Your task to perform on an android device: toggle location history Image 0: 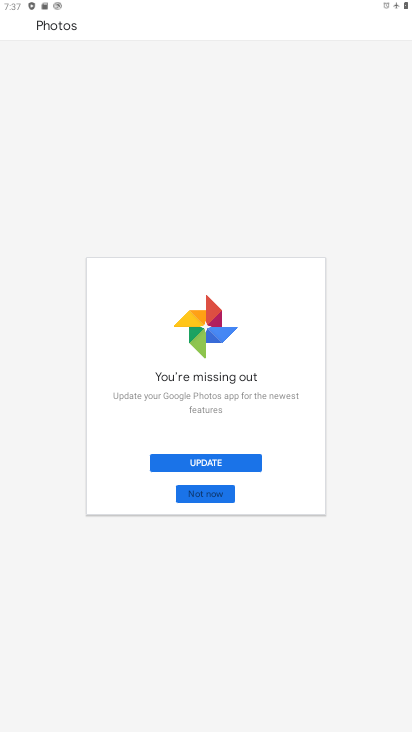
Step 0: press home button
Your task to perform on an android device: toggle location history Image 1: 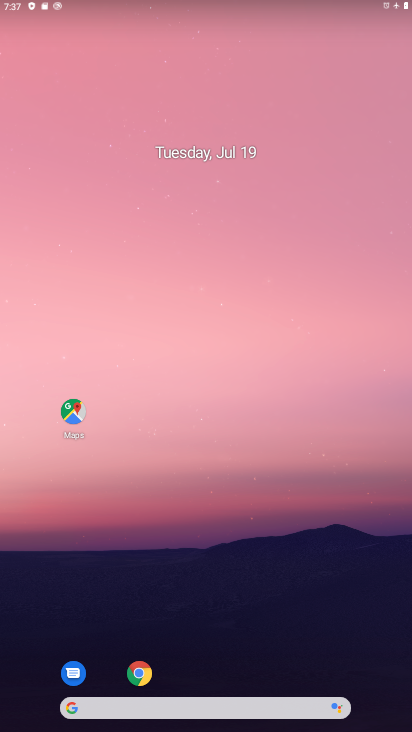
Step 1: drag from (261, 616) to (291, 3)
Your task to perform on an android device: toggle location history Image 2: 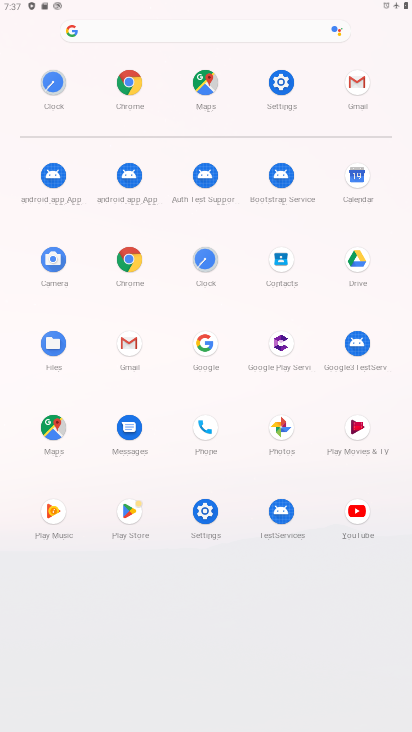
Step 2: click (275, 69)
Your task to perform on an android device: toggle location history Image 3: 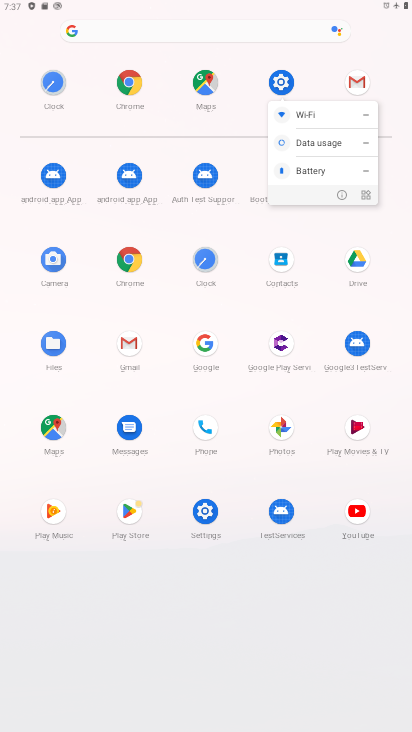
Step 3: click (276, 84)
Your task to perform on an android device: toggle location history Image 4: 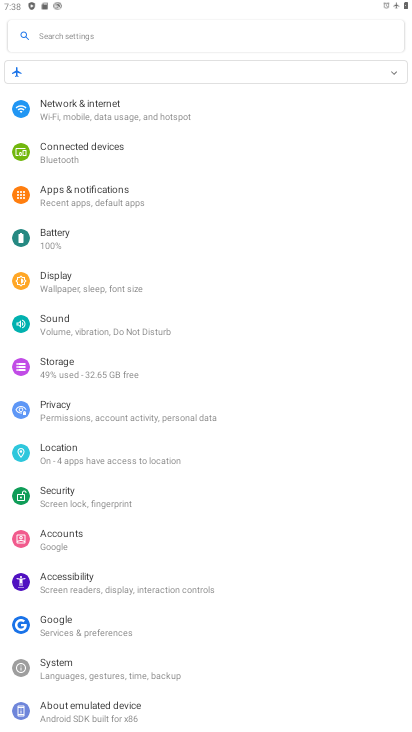
Step 4: click (76, 453)
Your task to perform on an android device: toggle location history Image 5: 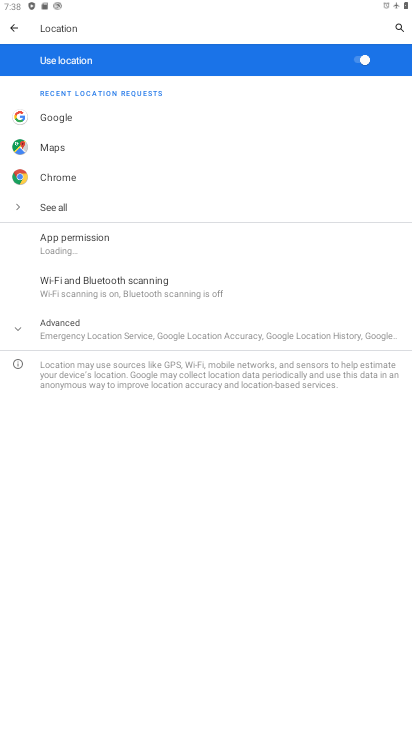
Step 5: click (98, 323)
Your task to perform on an android device: toggle location history Image 6: 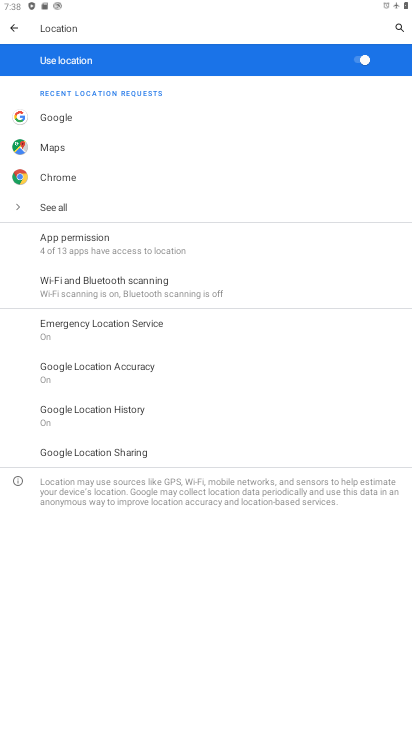
Step 6: click (112, 405)
Your task to perform on an android device: toggle location history Image 7: 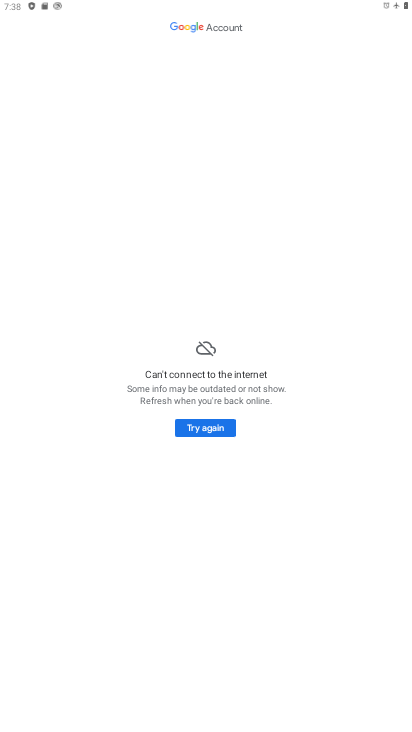
Step 7: task complete